Your task to perform on an android device: Add jbl charge 4 to the cart on newegg Image 0: 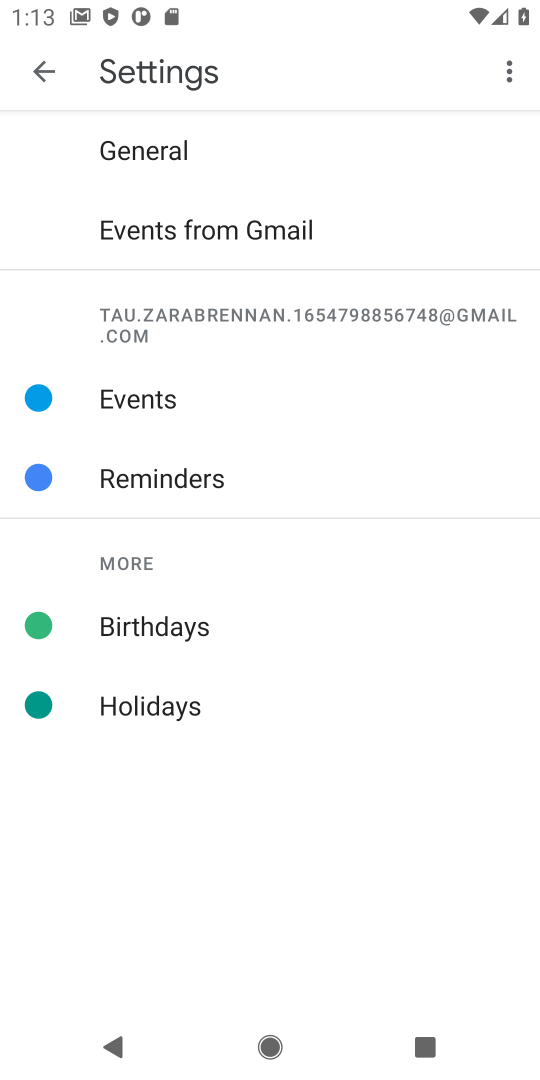
Step 0: press home button
Your task to perform on an android device: Add jbl charge 4 to the cart on newegg Image 1: 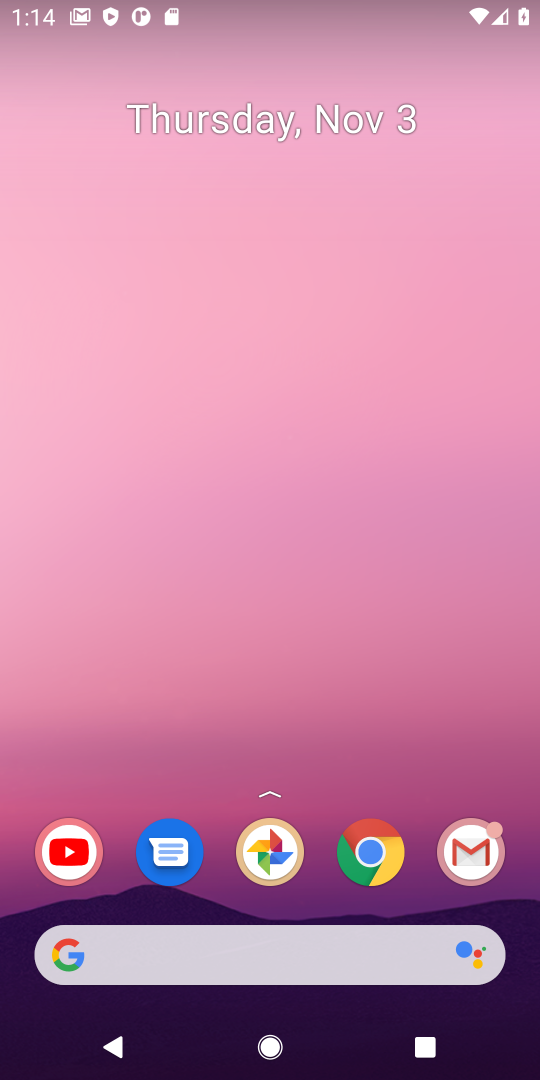
Step 1: click (378, 872)
Your task to perform on an android device: Add jbl charge 4 to the cart on newegg Image 2: 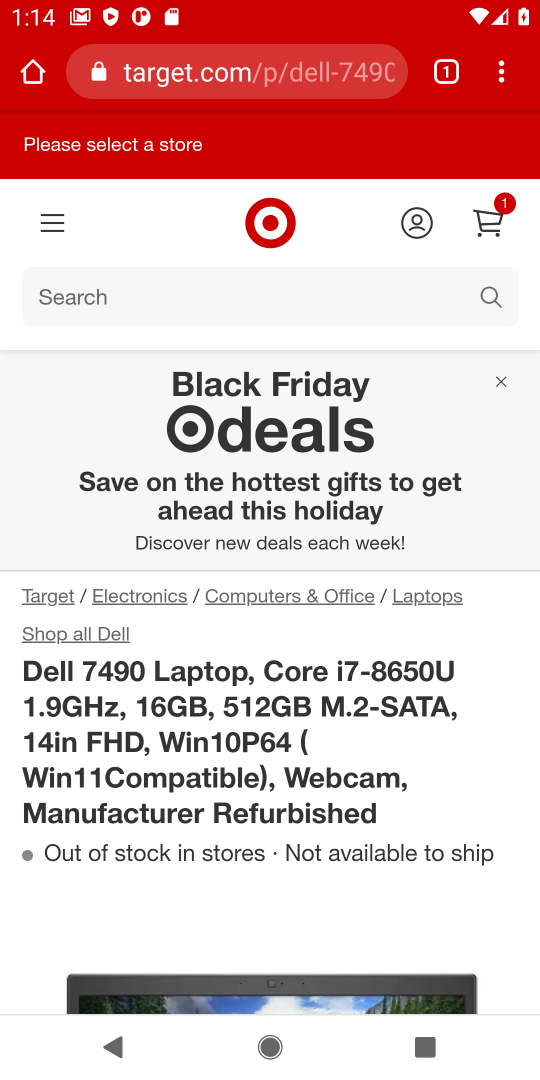
Step 2: click (196, 79)
Your task to perform on an android device: Add jbl charge 4 to the cart on newegg Image 3: 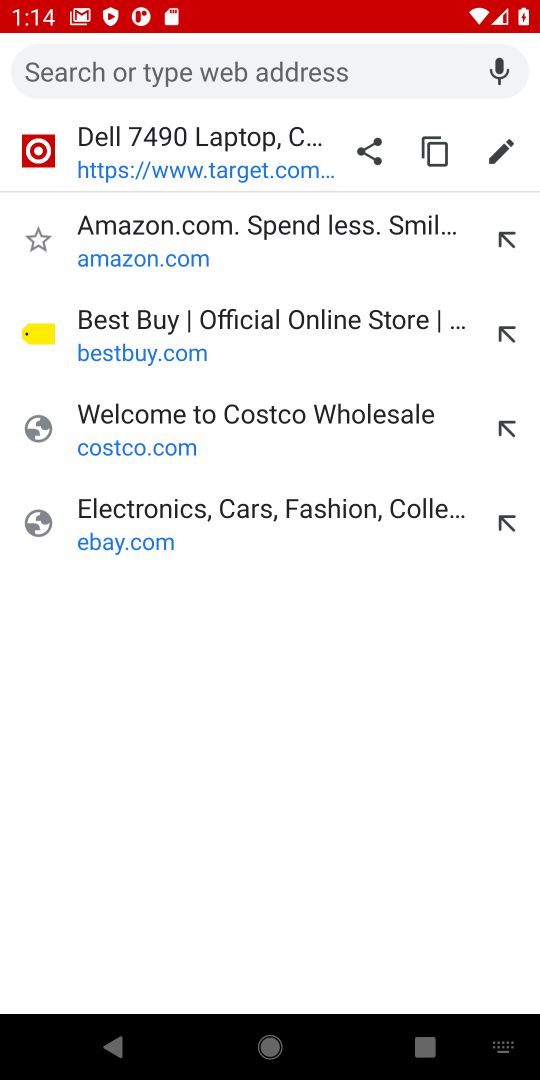
Step 3: type "newegg.com"
Your task to perform on an android device: Add jbl charge 4 to the cart on newegg Image 4: 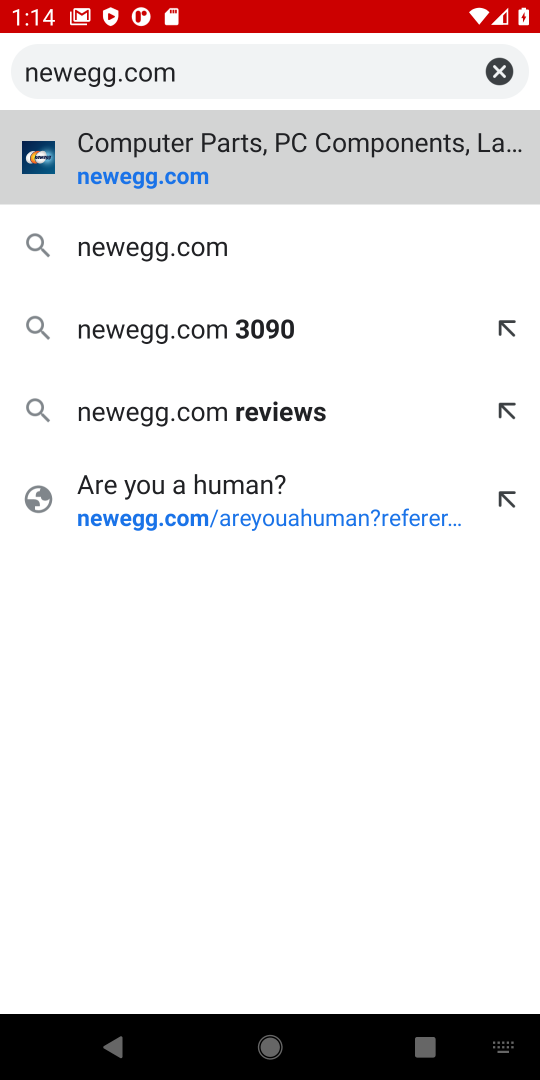
Step 4: click (106, 251)
Your task to perform on an android device: Add jbl charge 4 to the cart on newegg Image 5: 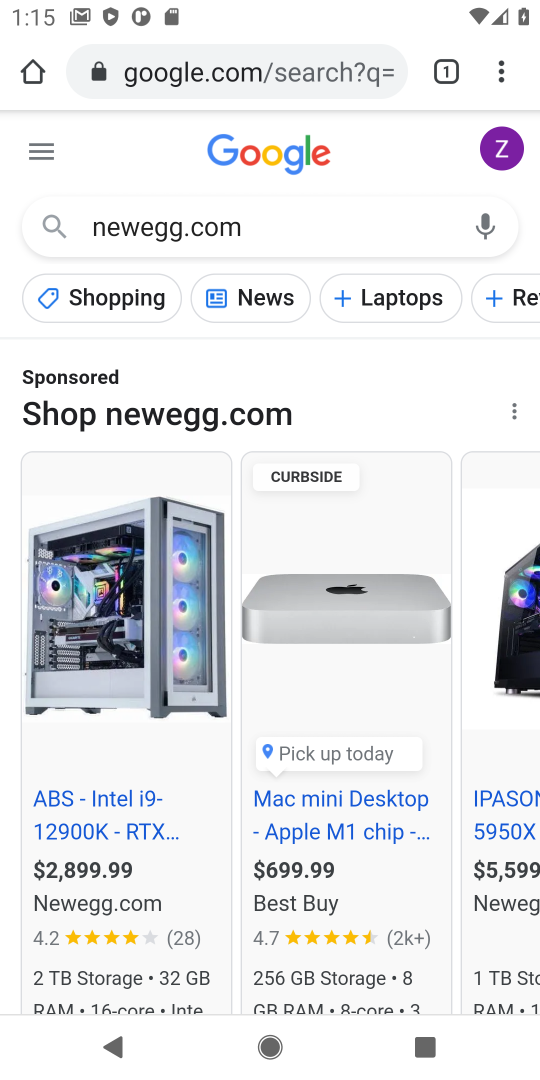
Step 5: drag from (282, 767) to (273, 142)
Your task to perform on an android device: Add jbl charge 4 to the cart on newegg Image 6: 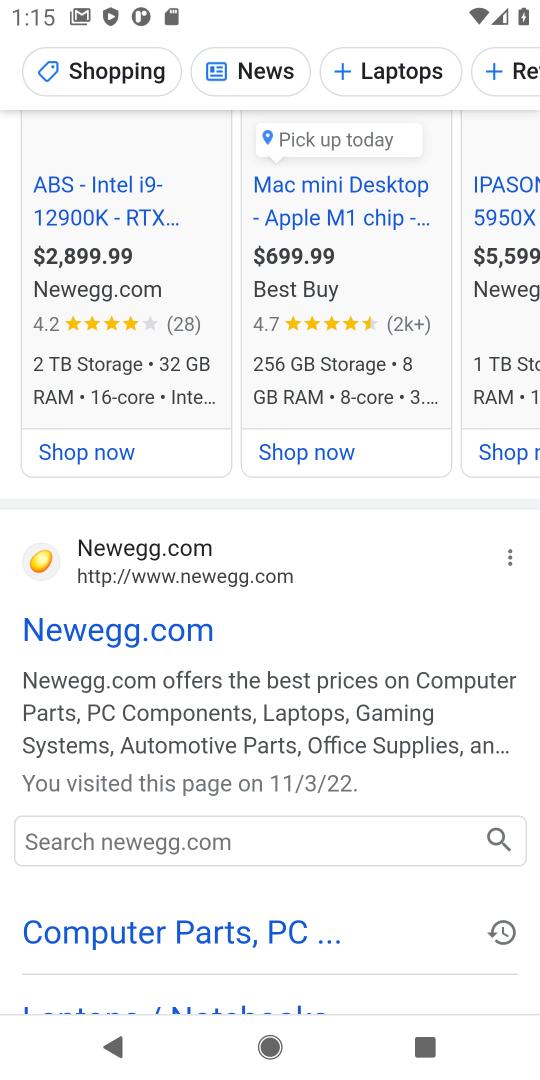
Step 6: click (95, 638)
Your task to perform on an android device: Add jbl charge 4 to the cart on newegg Image 7: 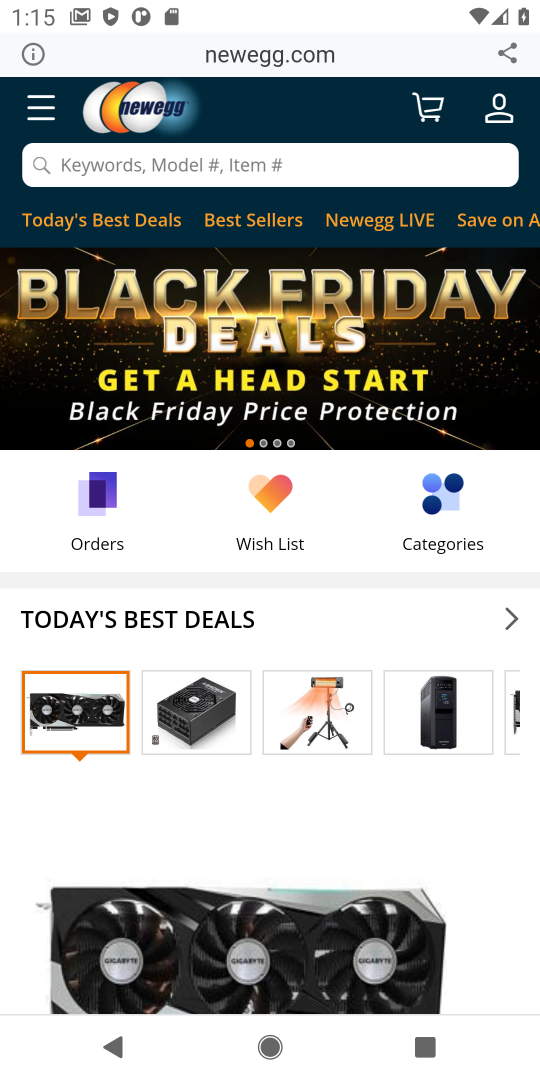
Step 7: click (187, 158)
Your task to perform on an android device: Add jbl charge 4 to the cart on newegg Image 8: 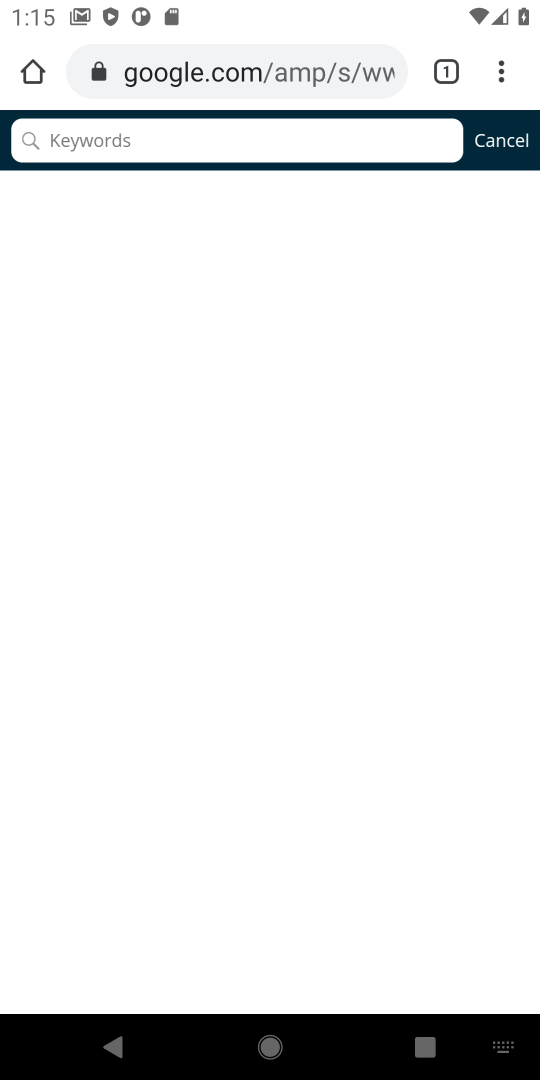
Step 8: type "jbl charge 4"
Your task to perform on an android device: Add jbl charge 4 to the cart on newegg Image 9: 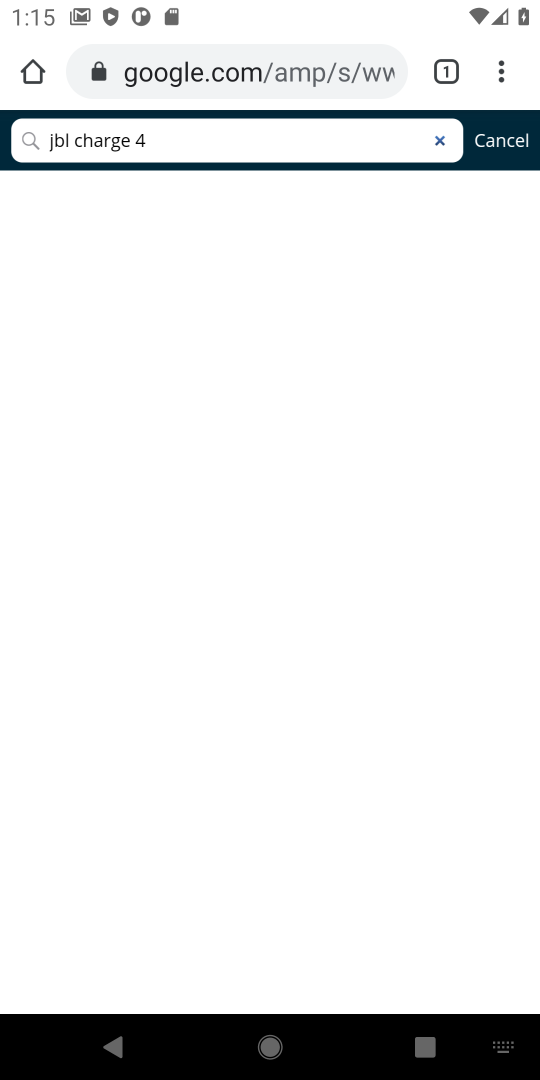
Step 9: click (31, 145)
Your task to perform on an android device: Add jbl charge 4 to the cart on newegg Image 10: 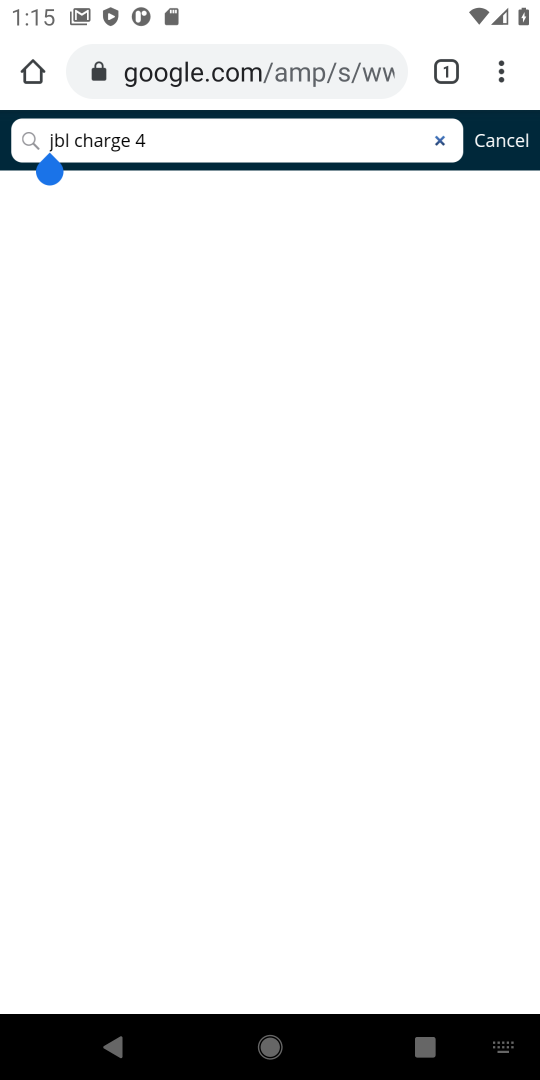
Step 10: click (32, 142)
Your task to perform on an android device: Add jbl charge 4 to the cart on newegg Image 11: 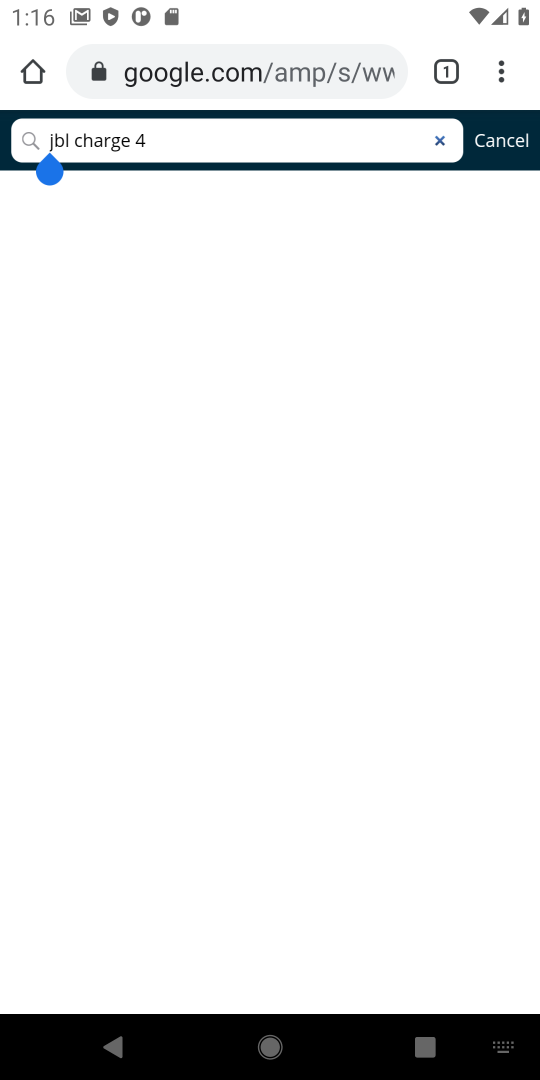
Step 11: task complete